Your task to perform on an android device: delete a single message in the gmail app Image 0: 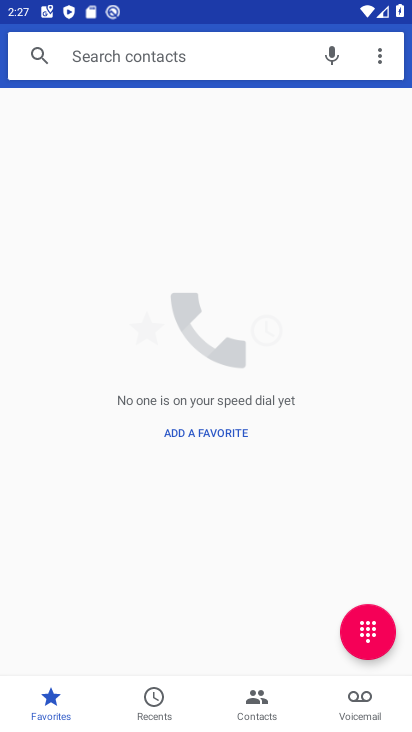
Step 0: press home button
Your task to perform on an android device: delete a single message in the gmail app Image 1: 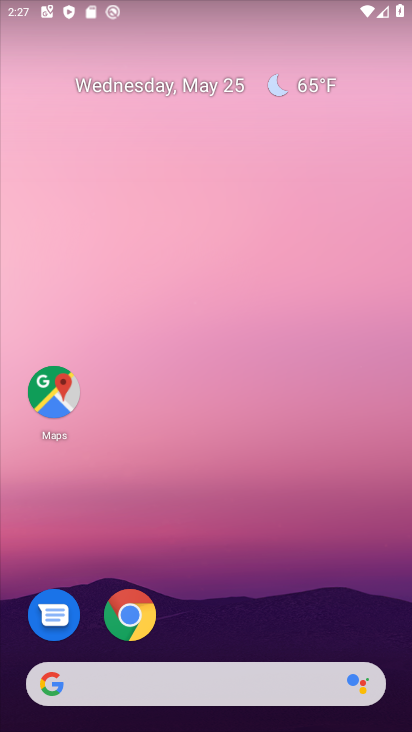
Step 1: drag from (403, 717) to (353, 203)
Your task to perform on an android device: delete a single message in the gmail app Image 2: 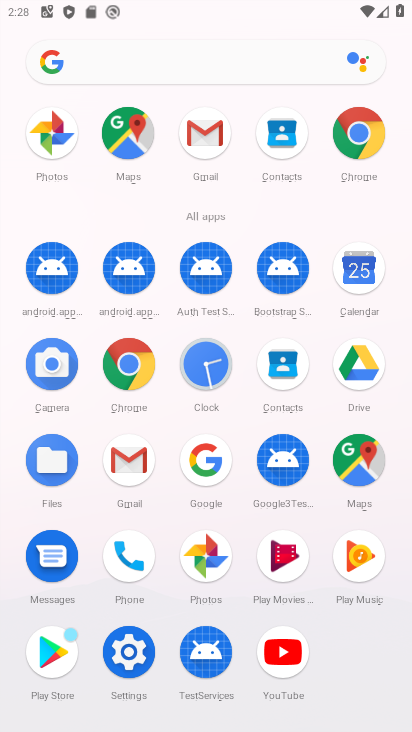
Step 2: click (125, 457)
Your task to perform on an android device: delete a single message in the gmail app Image 3: 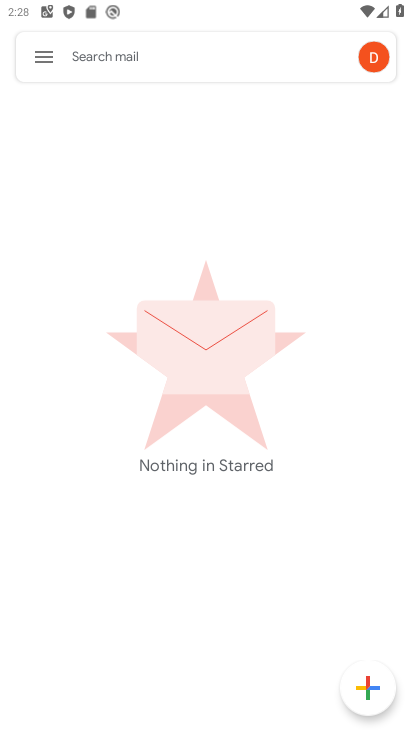
Step 3: click (50, 55)
Your task to perform on an android device: delete a single message in the gmail app Image 4: 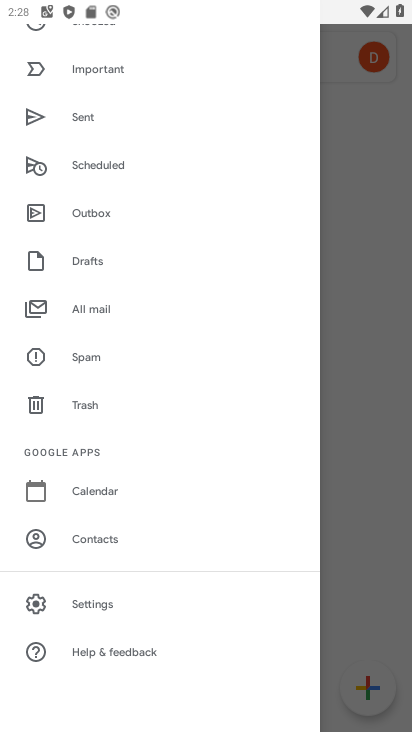
Step 4: drag from (204, 89) to (231, 618)
Your task to perform on an android device: delete a single message in the gmail app Image 5: 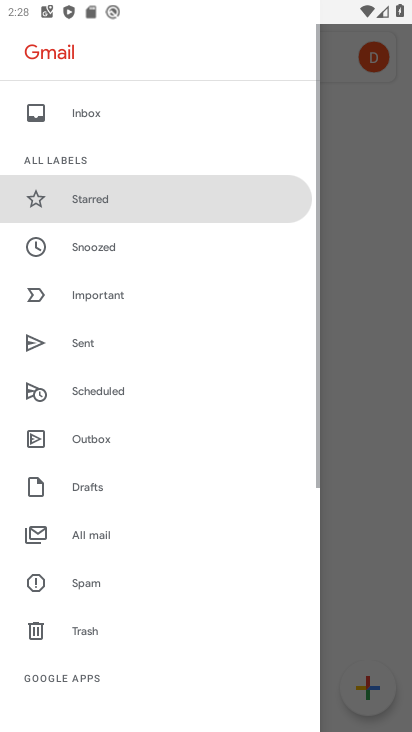
Step 5: click (101, 119)
Your task to perform on an android device: delete a single message in the gmail app Image 6: 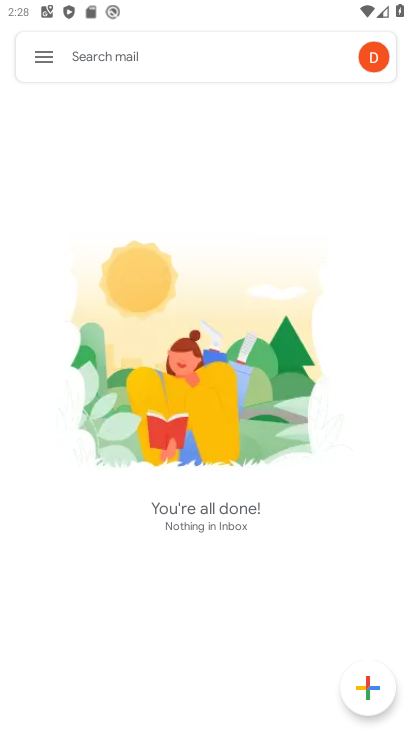
Step 6: task complete